Your task to perform on an android device: Open calendar and show me the first week of next month Image 0: 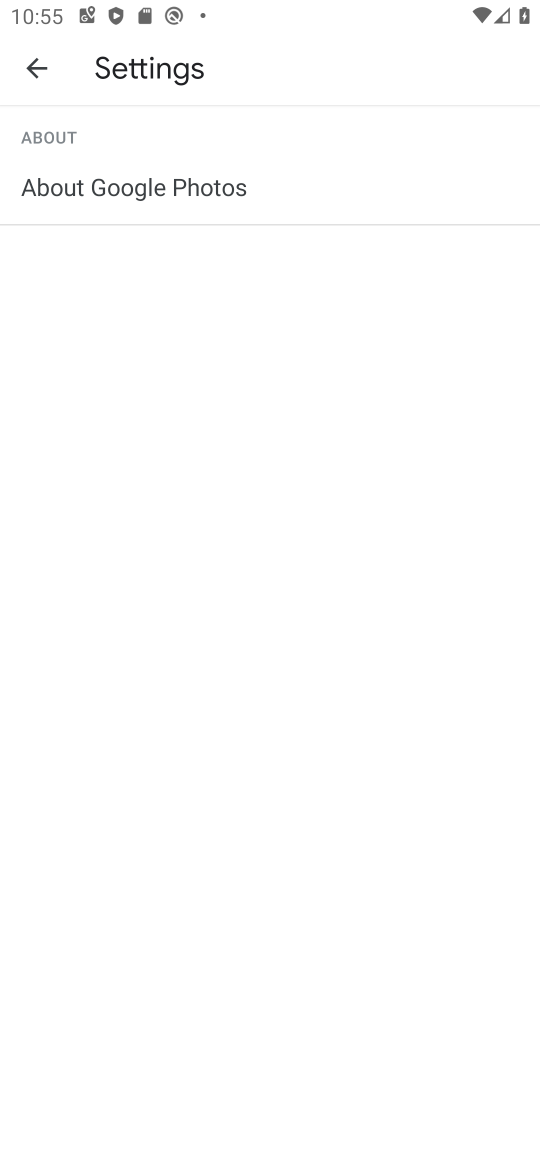
Step 0: press home button
Your task to perform on an android device: Open calendar and show me the first week of next month Image 1: 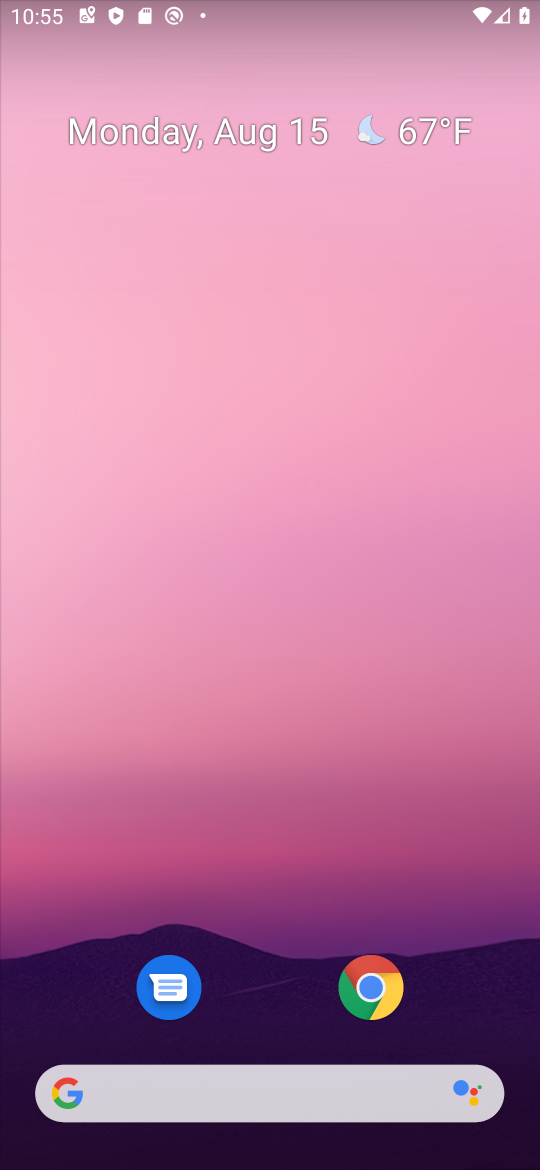
Step 1: drag from (283, 1058) to (199, 26)
Your task to perform on an android device: Open calendar and show me the first week of next month Image 2: 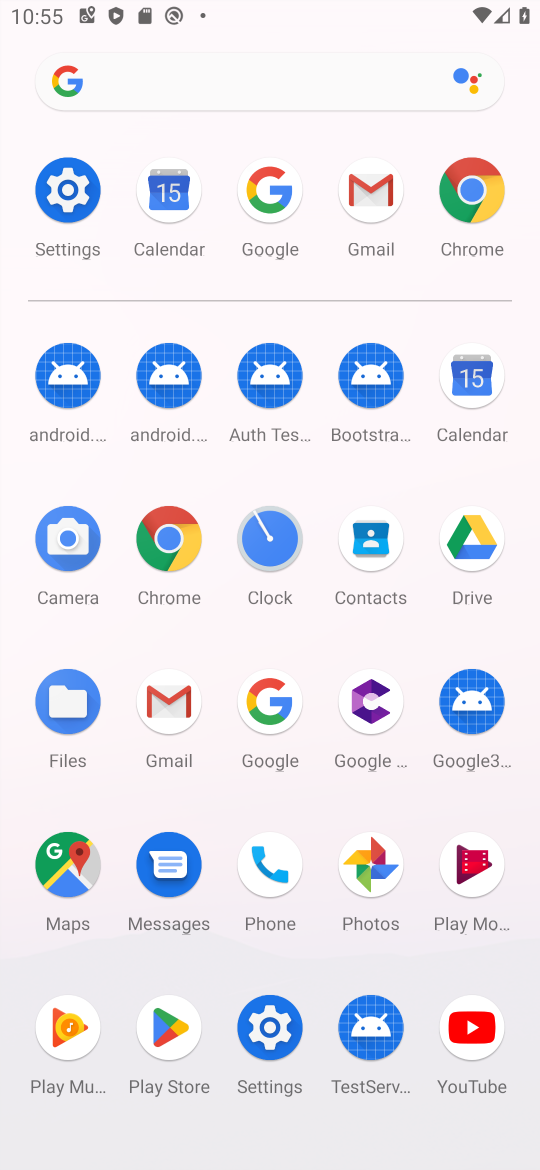
Step 2: click (438, 357)
Your task to perform on an android device: Open calendar and show me the first week of next month Image 3: 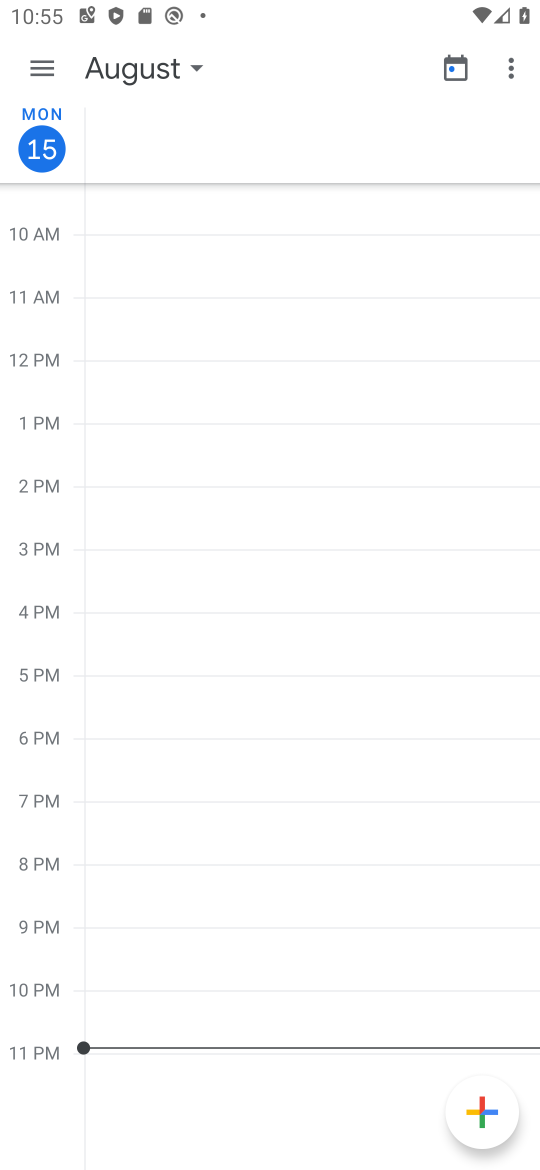
Step 3: click (26, 57)
Your task to perform on an android device: Open calendar and show me the first week of next month Image 4: 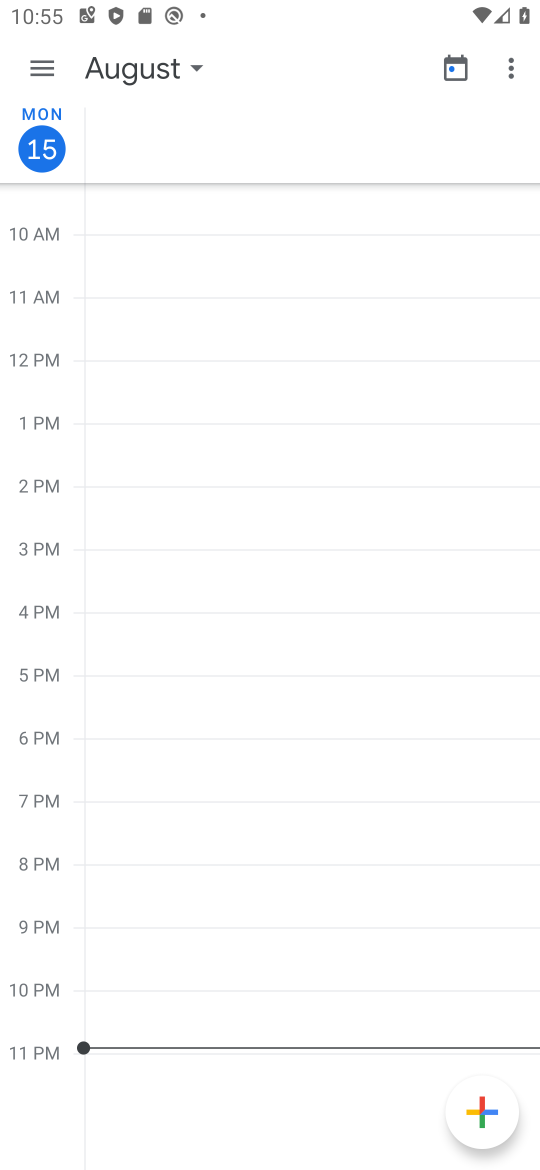
Step 4: click (42, 69)
Your task to perform on an android device: Open calendar and show me the first week of next month Image 5: 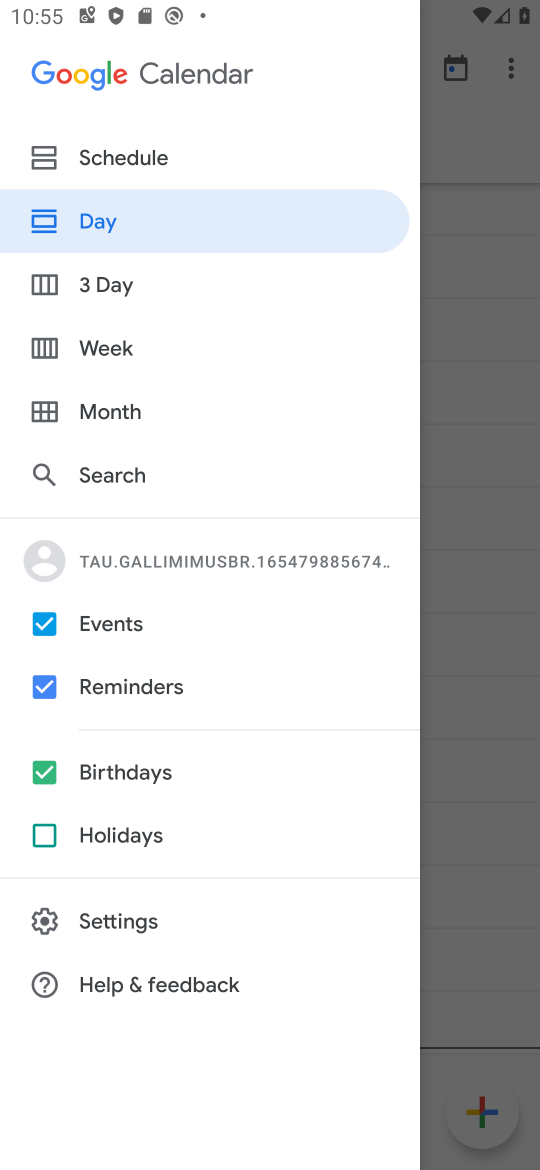
Step 5: click (97, 351)
Your task to perform on an android device: Open calendar and show me the first week of next month Image 6: 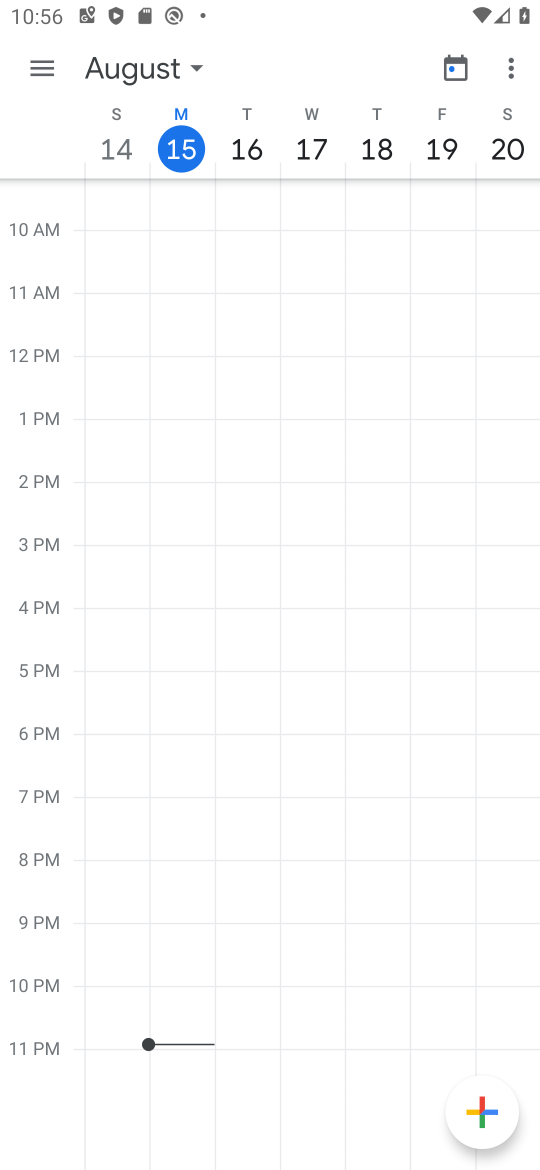
Step 6: click (20, 66)
Your task to perform on an android device: Open calendar and show me the first week of next month Image 7: 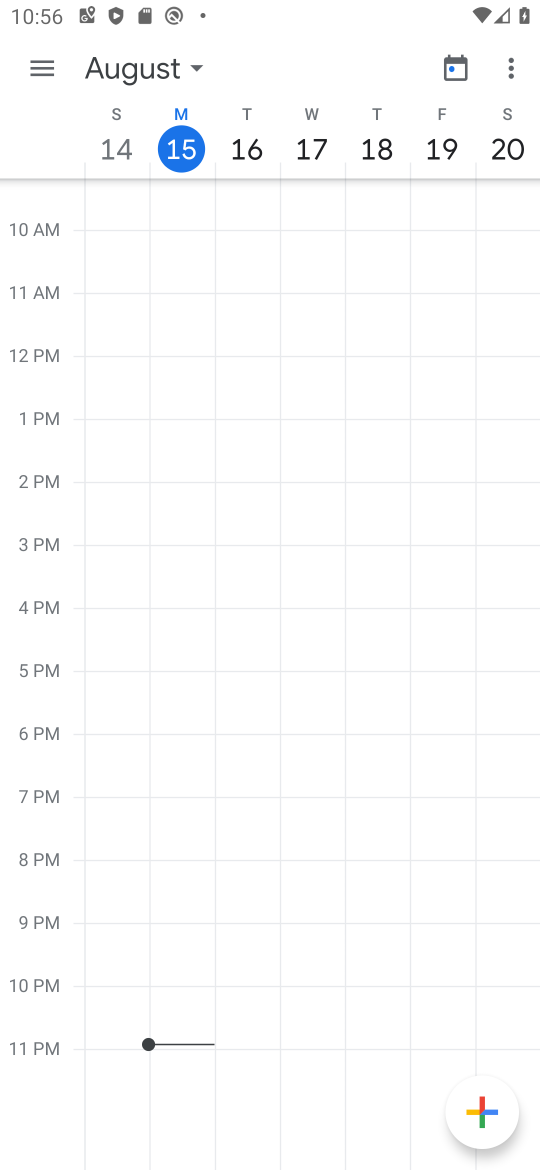
Step 7: click (45, 70)
Your task to perform on an android device: Open calendar and show me the first week of next month Image 8: 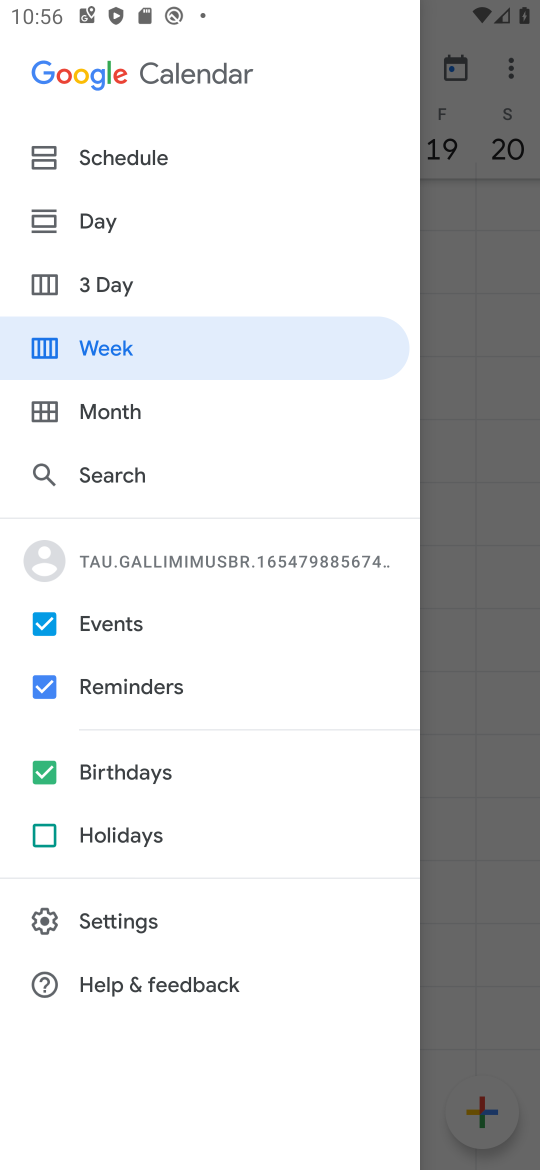
Step 8: click (229, 351)
Your task to perform on an android device: Open calendar and show me the first week of next month Image 9: 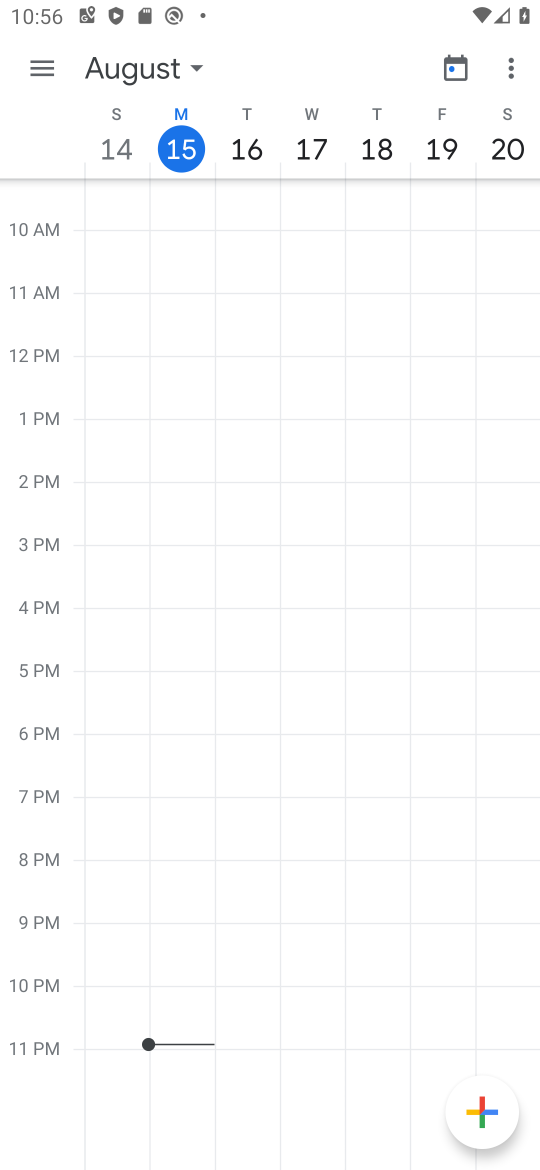
Step 9: task complete